Your task to perform on an android device: Show me popular videos on Youtube Image 0: 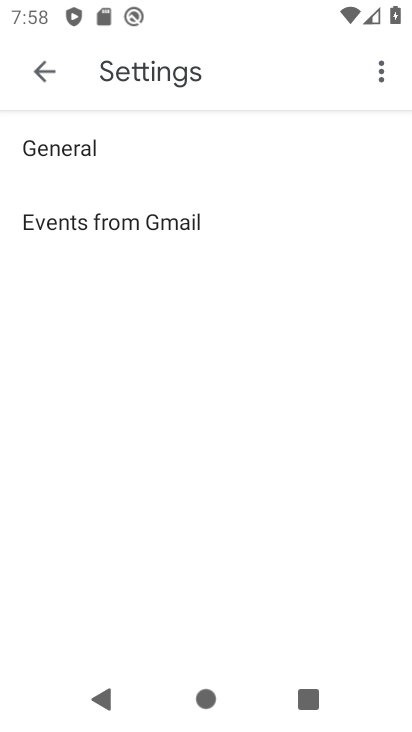
Step 0: press home button
Your task to perform on an android device: Show me popular videos on Youtube Image 1: 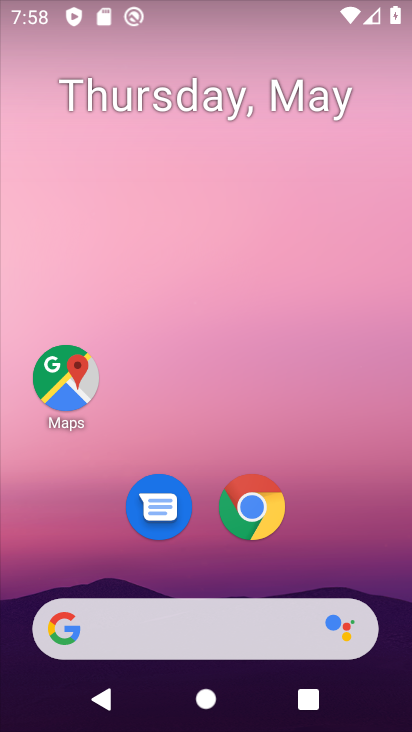
Step 1: drag from (390, 603) to (354, 78)
Your task to perform on an android device: Show me popular videos on Youtube Image 2: 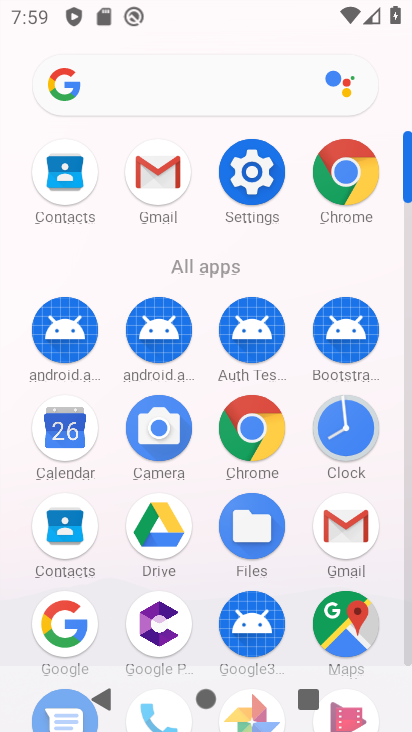
Step 2: click (407, 659)
Your task to perform on an android device: Show me popular videos on Youtube Image 3: 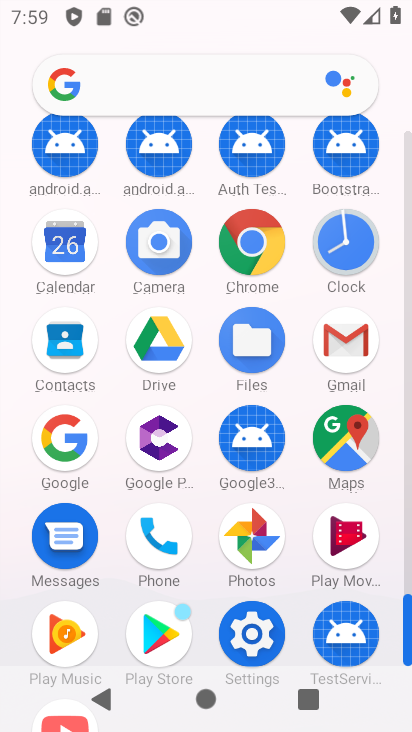
Step 3: drag from (392, 581) to (391, 457)
Your task to perform on an android device: Show me popular videos on Youtube Image 4: 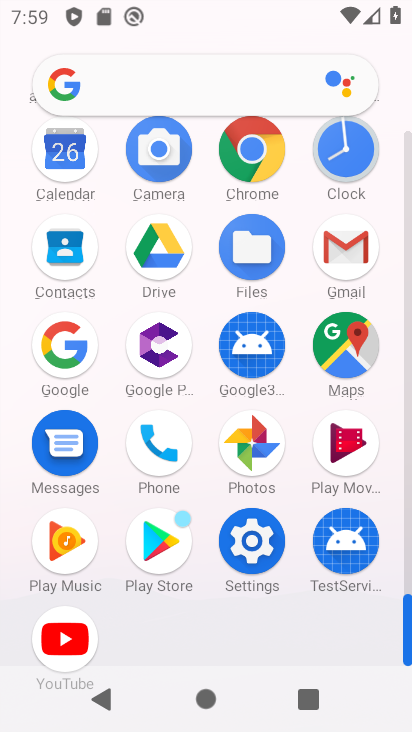
Step 4: click (76, 646)
Your task to perform on an android device: Show me popular videos on Youtube Image 5: 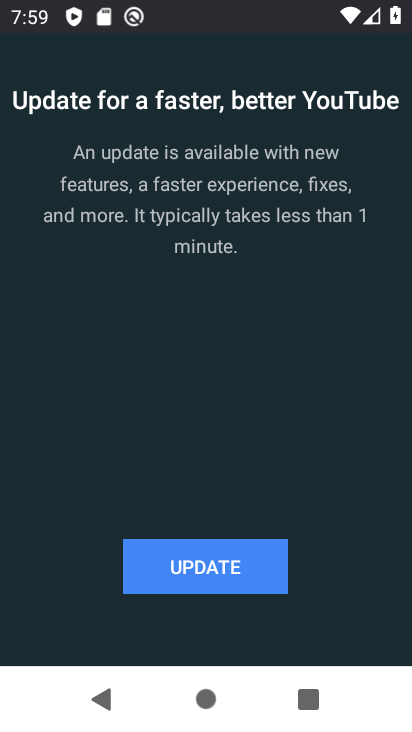
Step 5: click (180, 561)
Your task to perform on an android device: Show me popular videos on Youtube Image 6: 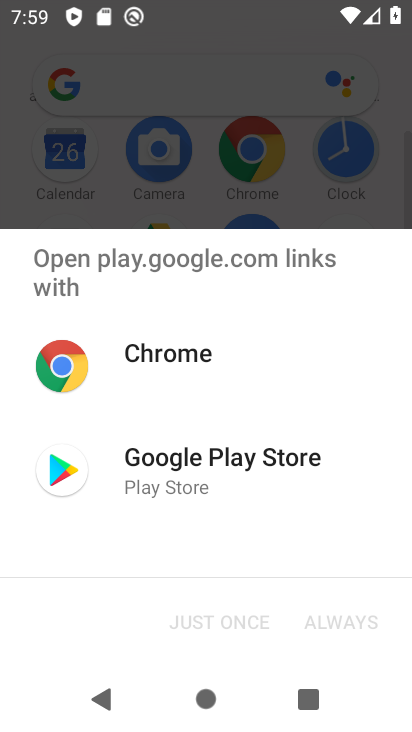
Step 6: click (183, 470)
Your task to perform on an android device: Show me popular videos on Youtube Image 7: 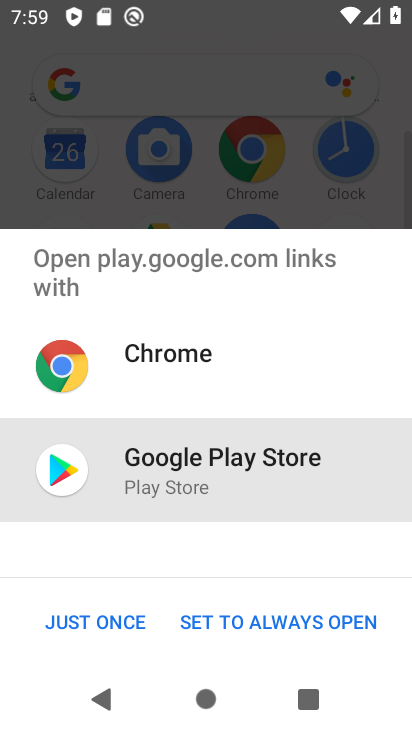
Step 7: click (101, 608)
Your task to perform on an android device: Show me popular videos on Youtube Image 8: 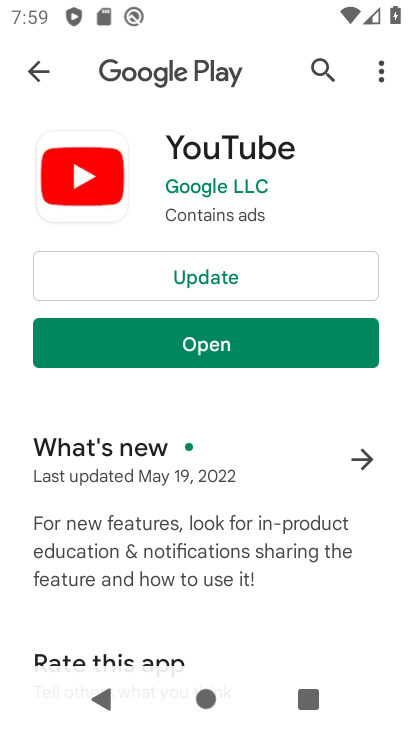
Step 8: click (223, 282)
Your task to perform on an android device: Show me popular videos on Youtube Image 9: 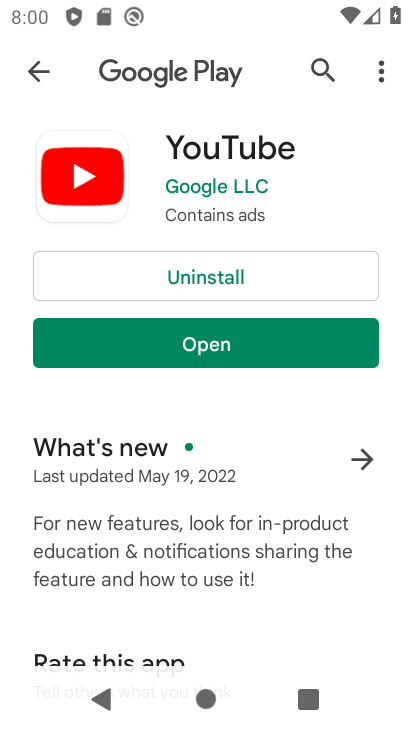
Step 9: click (249, 334)
Your task to perform on an android device: Show me popular videos on Youtube Image 10: 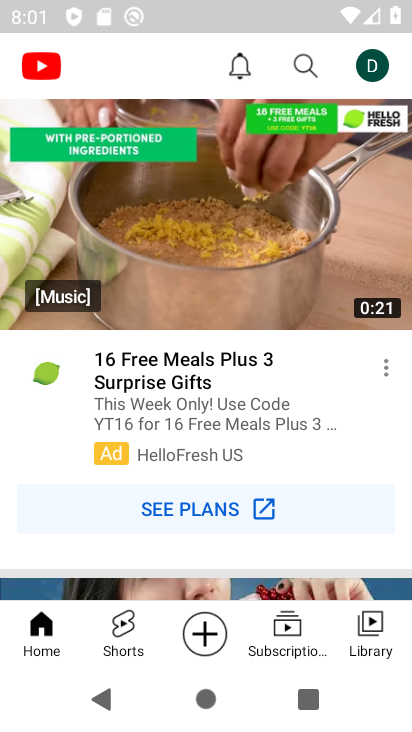
Step 10: click (271, 650)
Your task to perform on an android device: Show me popular videos on Youtube Image 11: 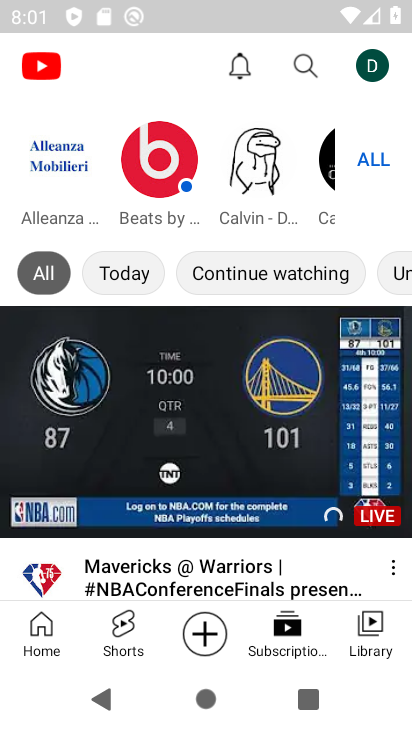
Step 11: click (139, 634)
Your task to perform on an android device: Show me popular videos on Youtube Image 12: 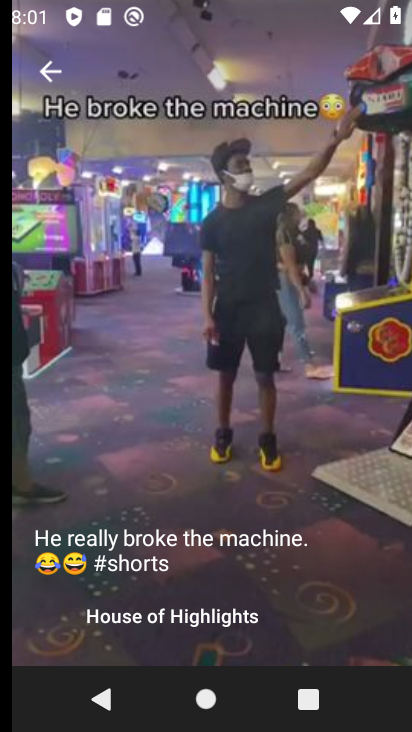
Step 12: click (46, 621)
Your task to perform on an android device: Show me popular videos on Youtube Image 13: 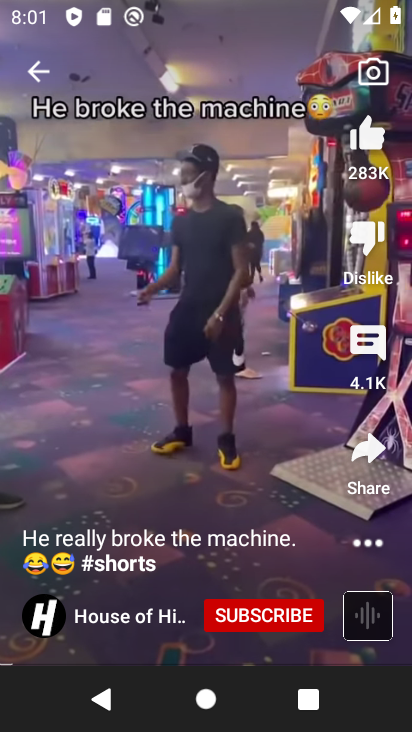
Step 13: task complete